Your task to perform on an android device: Go to Android settings Image 0: 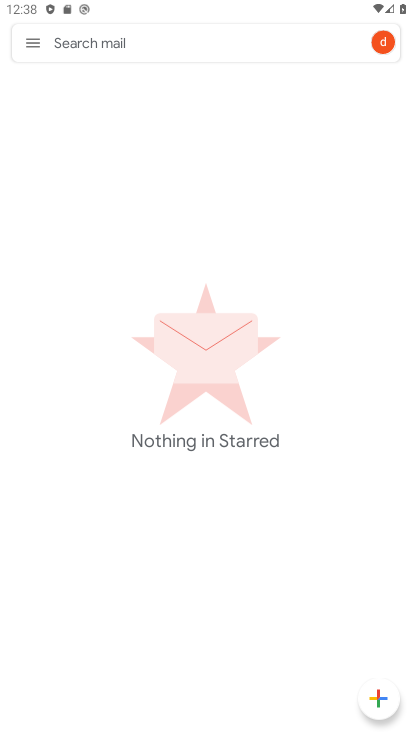
Step 0: press home button
Your task to perform on an android device: Go to Android settings Image 1: 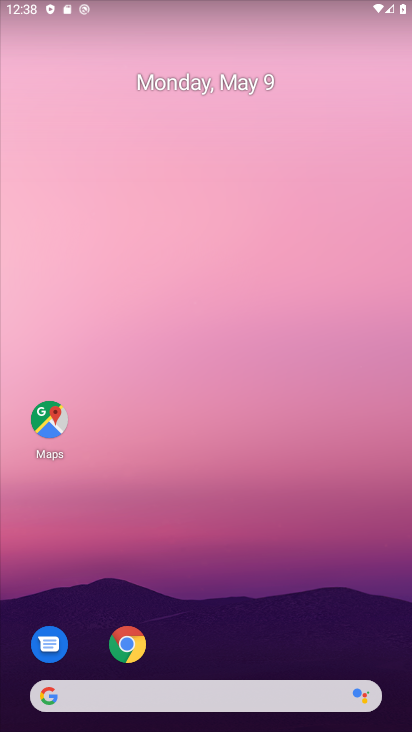
Step 1: drag from (231, 638) to (208, 8)
Your task to perform on an android device: Go to Android settings Image 2: 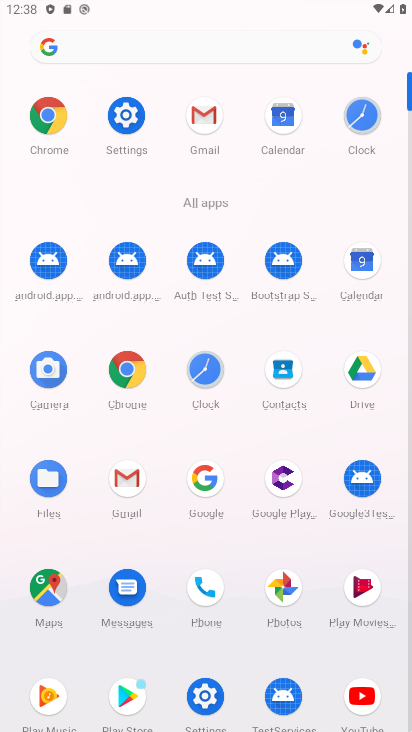
Step 2: click (128, 134)
Your task to perform on an android device: Go to Android settings Image 3: 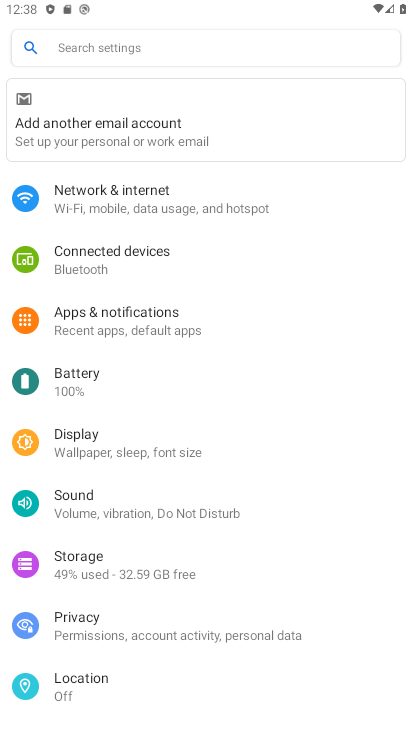
Step 3: drag from (247, 618) to (244, 132)
Your task to perform on an android device: Go to Android settings Image 4: 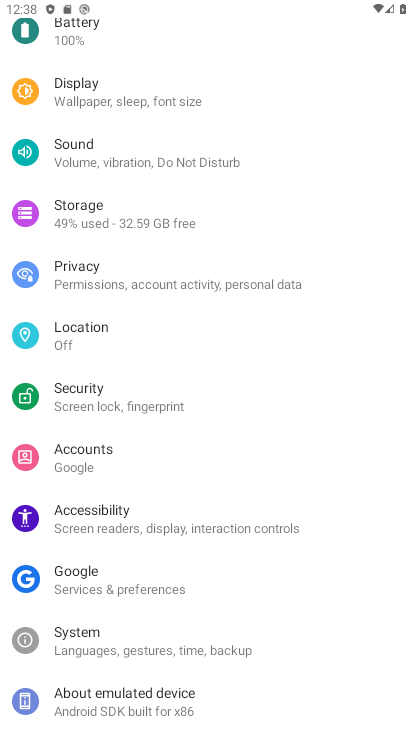
Step 4: drag from (173, 595) to (144, 109)
Your task to perform on an android device: Go to Android settings Image 5: 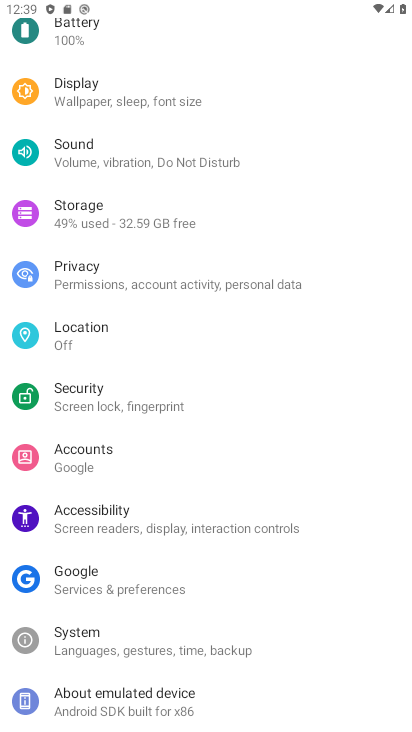
Step 5: drag from (161, 209) to (156, 722)
Your task to perform on an android device: Go to Android settings Image 6: 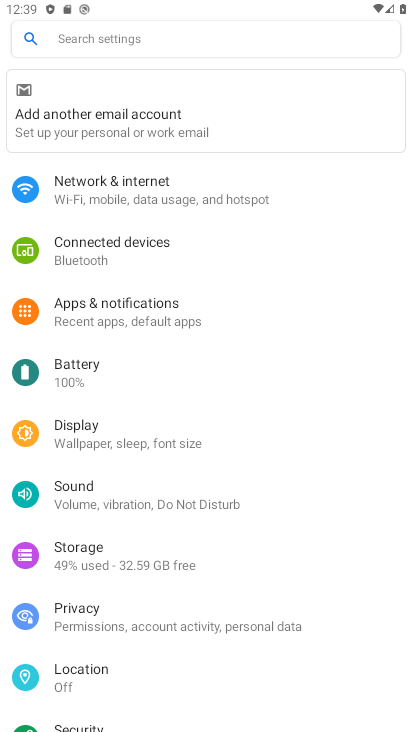
Step 6: drag from (192, 176) to (149, 679)
Your task to perform on an android device: Go to Android settings Image 7: 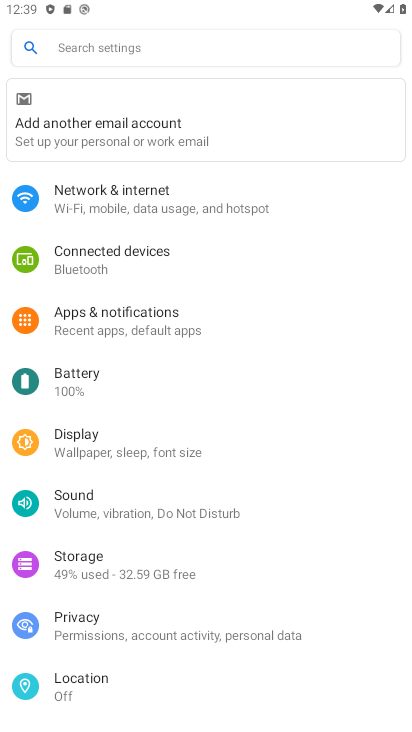
Step 7: drag from (179, 660) to (190, 314)
Your task to perform on an android device: Go to Android settings Image 8: 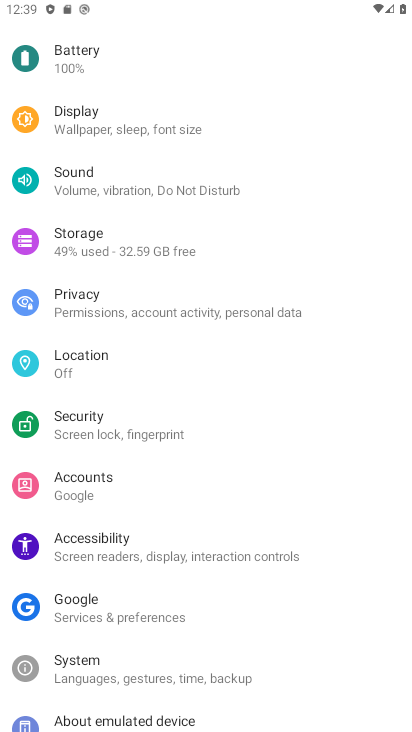
Step 8: drag from (183, 461) to (166, 659)
Your task to perform on an android device: Go to Android settings Image 9: 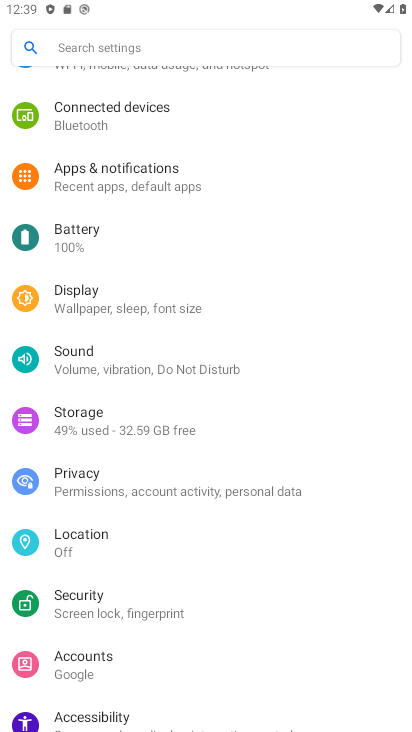
Step 9: drag from (185, 388) to (177, 671)
Your task to perform on an android device: Go to Android settings Image 10: 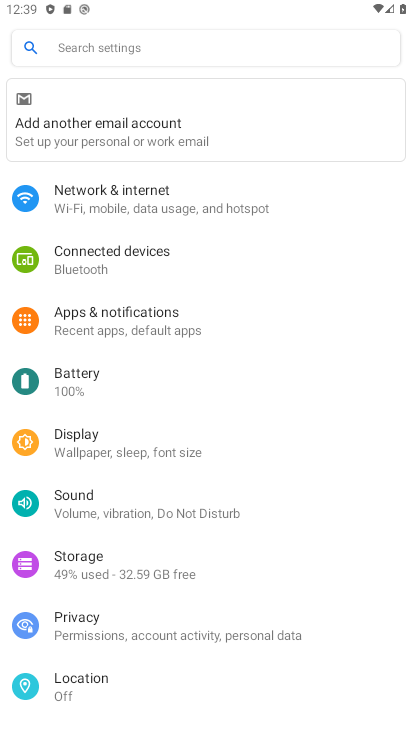
Step 10: drag from (234, 648) to (242, 426)
Your task to perform on an android device: Go to Android settings Image 11: 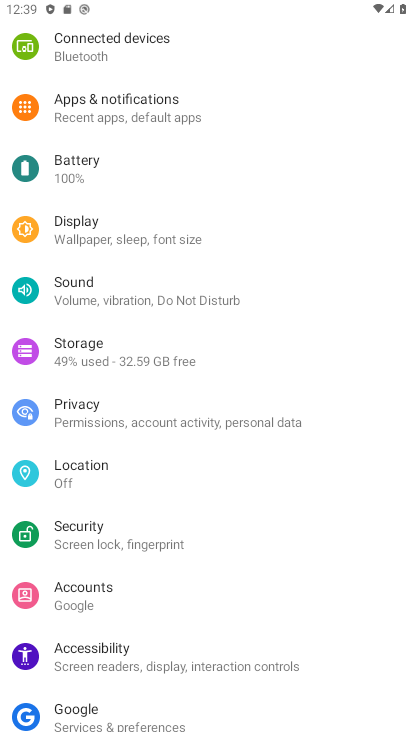
Step 11: drag from (222, 577) to (241, 313)
Your task to perform on an android device: Go to Android settings Image 12: 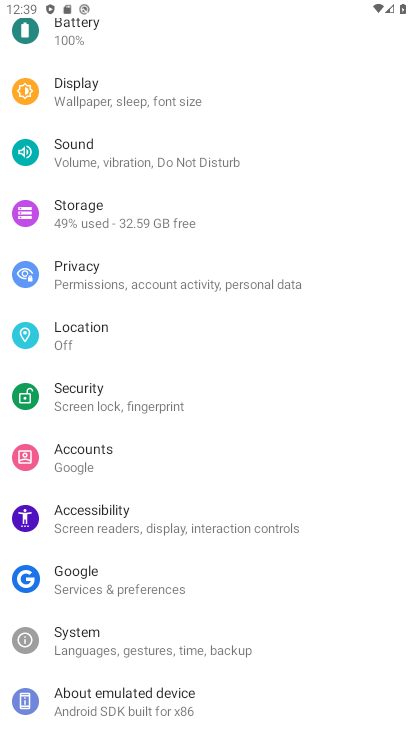
Step 12: drag from (287, 582) to (182, 264)
Your task to perform on an android device: Go to Android settings Image 13: 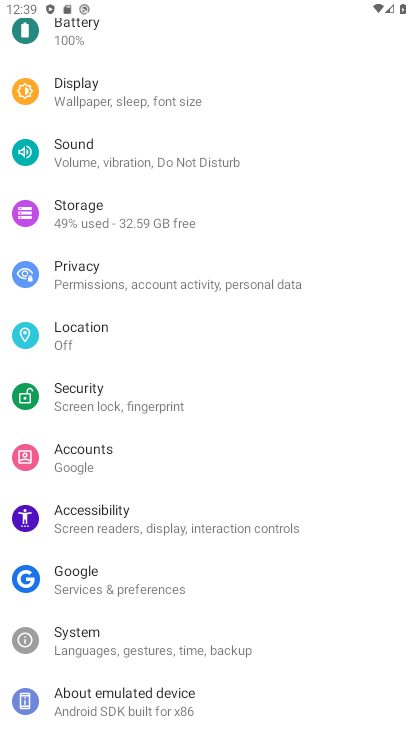
Step 13: click (99, 691)
Your task to perform on an android device: Go to Android settings Image 14: 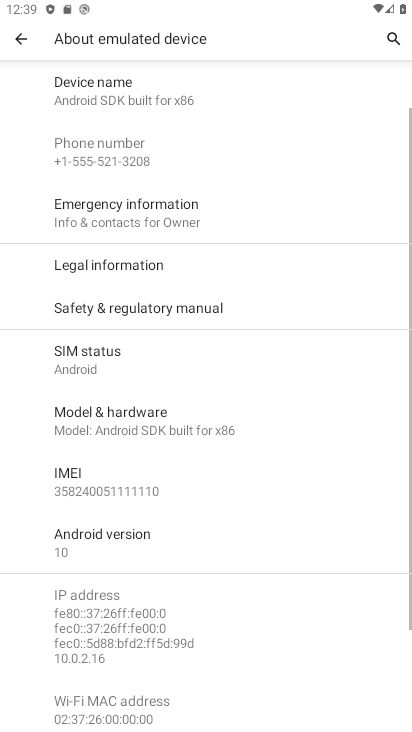
Step 14: drag from (244, 616) to (301, 217)
Your task to perform on an android device: Go to Android settings Image 15: 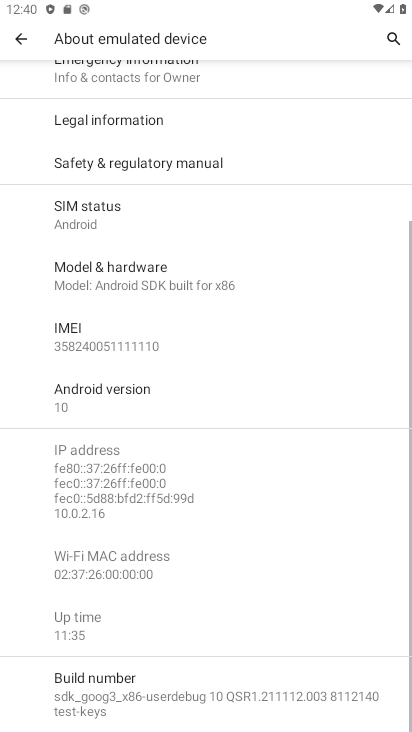
Step 15: drag from (299, 579) to (333, 131)
Your task to perform on an android device: Go to Android settings Image 16: 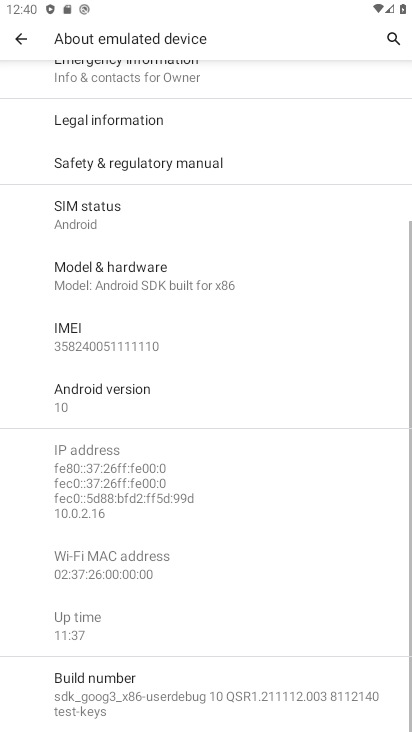
Step 16: drag from (308, 191) to (269, 584)
Your task to perform on an android device: Go to Android settings Image 17: 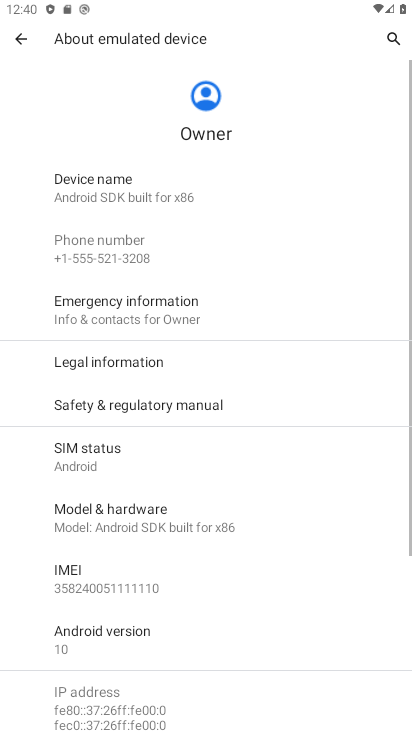
Step 17: drag from (258, 492) to (231, 683)
Your task to perform on an android device: Go to Android settings Image 18: 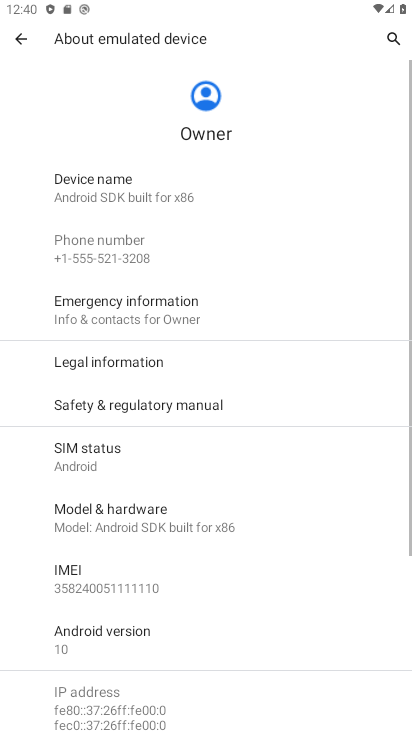
Step 18: drag from (250, 585) to (247, 209)
Your task to perform on an android device: Go to Android settings Image 19: 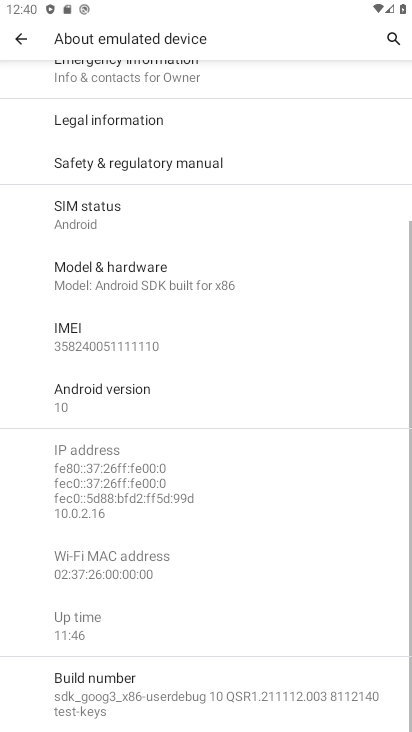
Step 19: click (119, 387)
Your task to perform on an android device: Go to Android settings Image 20: 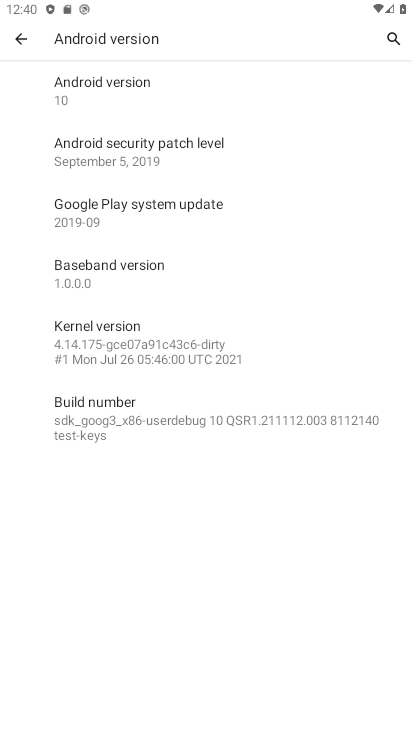
Step 20: task complete